Your task to perform on an android device: Go to ESPN.com Image 0: 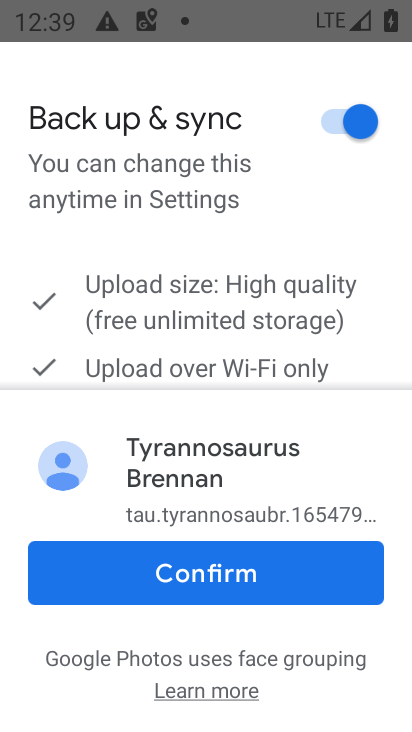
Step 0: press home button
Your task to perform on an android device: Go to ESPN.com Image 1: 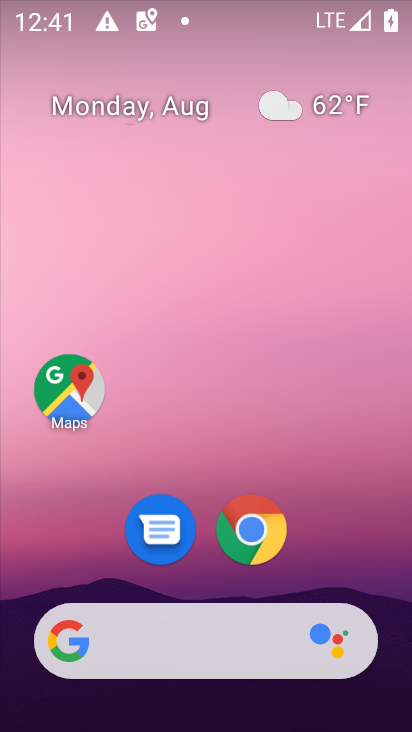
Step 1: click (261, 539)
Your task to perform on an android device: Go to ESPN.com Image 2: 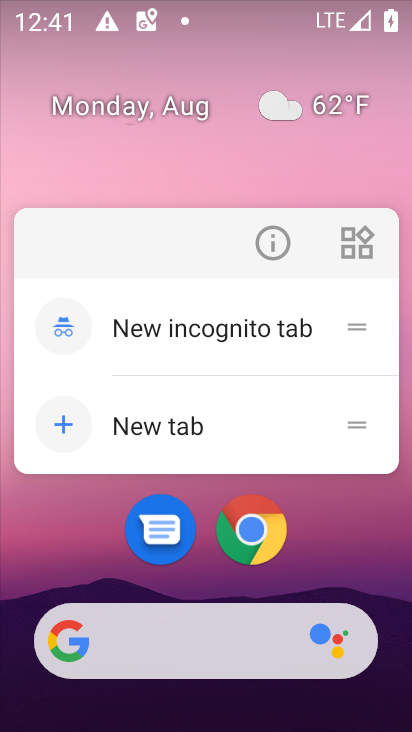
Step 2: click (261, 539)
Your task to perform on an android device: Go to ESPN.com Image 3: 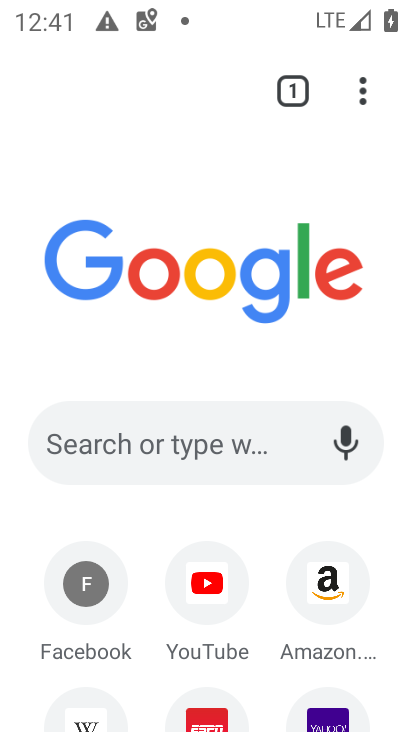
Step 3: drag from (213, 660) to (184, 341)
Your task to perform on an android device: Go to ESPN.com Image 4: 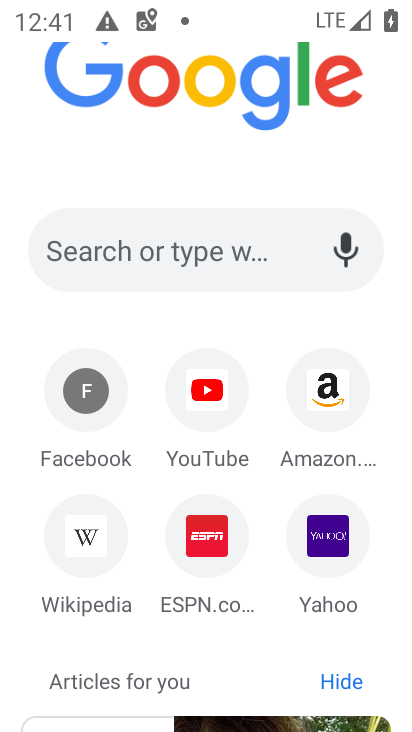
Step 4: click (216, 544)
Your task to perform on an android device: Go to ESPN.com Image 5: 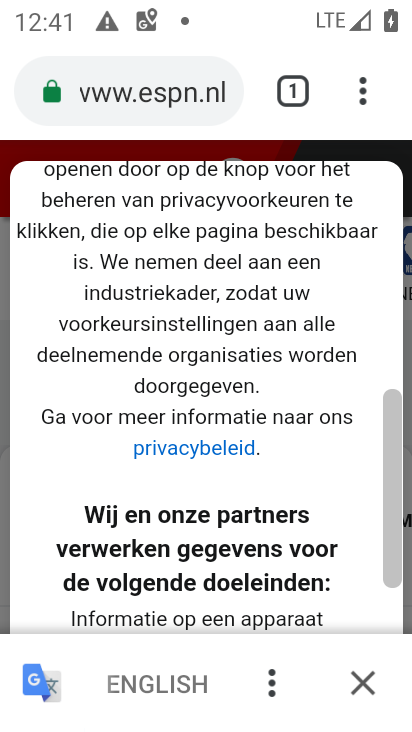
Step 5: task complete